Your task to perform on an android device: Open settings Image 0: 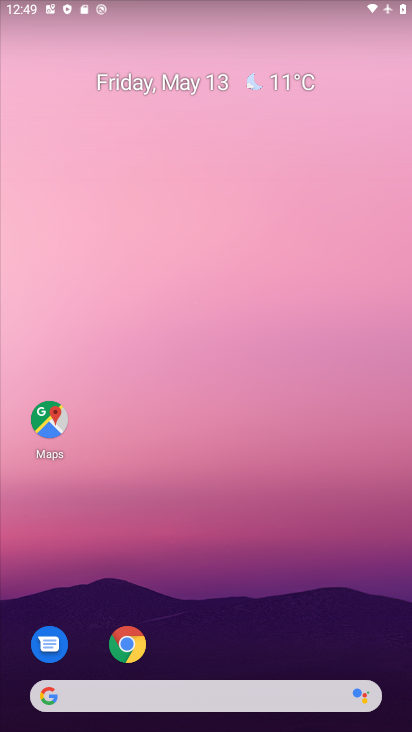
Step 0: drag from (207, 728) to (163, 25)
Your task to perform on an android device: Open settings Image 1: 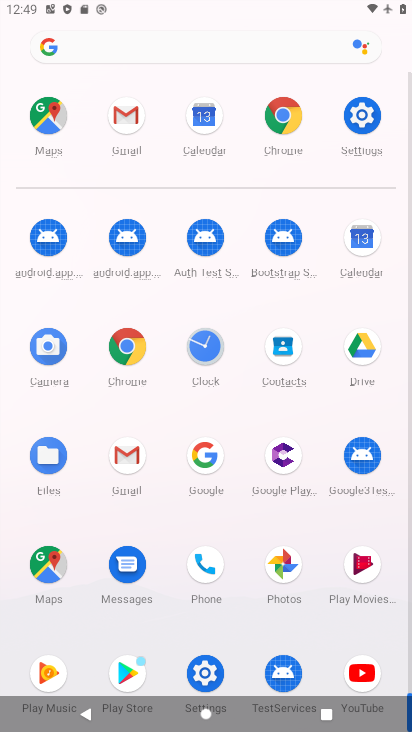
Step 1: click (363, 117)
Your task to perform on an android device: Open settings Image 2: 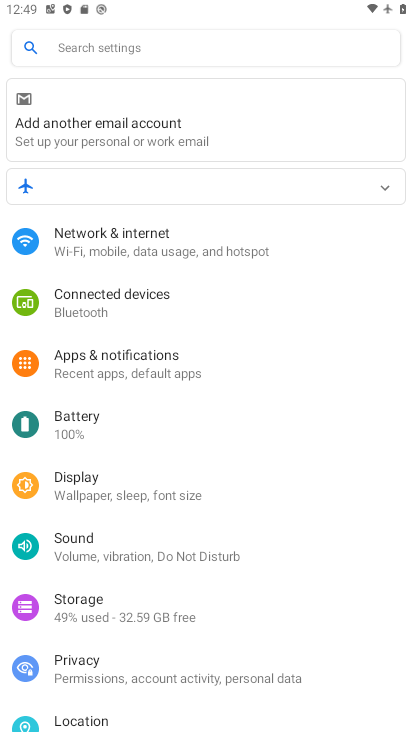
Step 2: task complete